Your task to perform on an android device: toggle airplane mode Image 0: 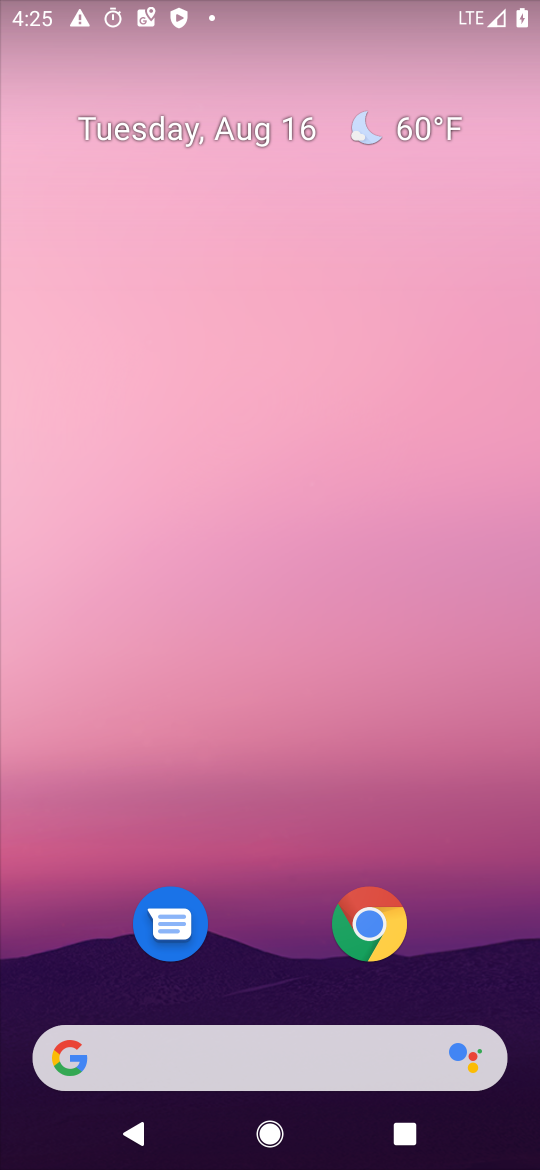
Step 0: drag from (388, 24) to (421, 808)
Your task to perform on an android device: toggle airplane mode Image 1: 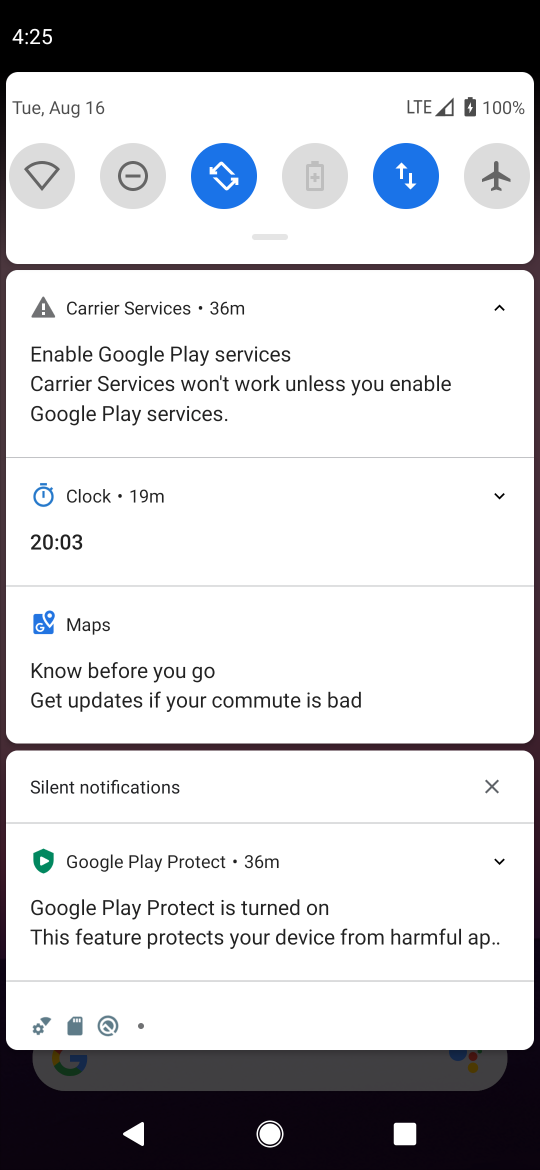
Step 1: click (511, 198)
Your task to perform on an android device: toggle airplane mode Image 2: 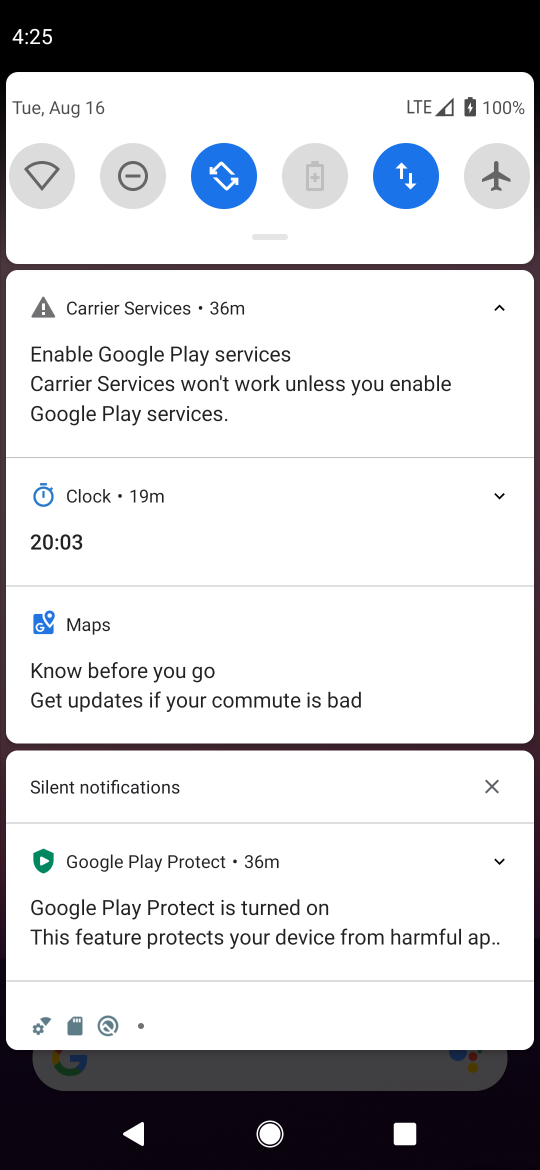
Step 2: click (511, 198)
Your task to perform on an android device: toggle airplane mode Image 3: 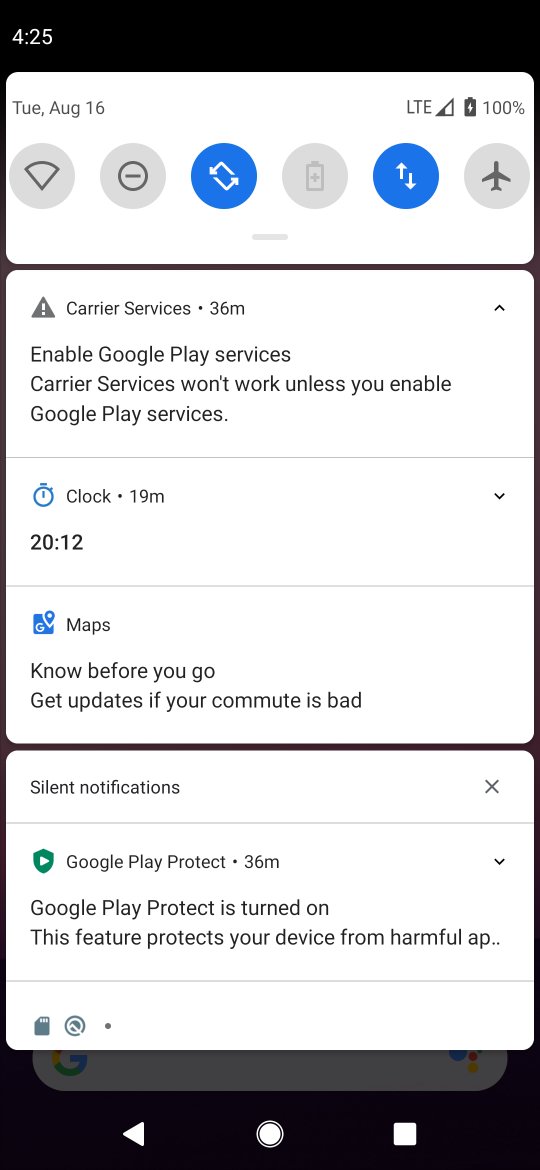
Step 3: click (480, 172)
Your task to perform on an android device: toggle airplane mode Image 4: 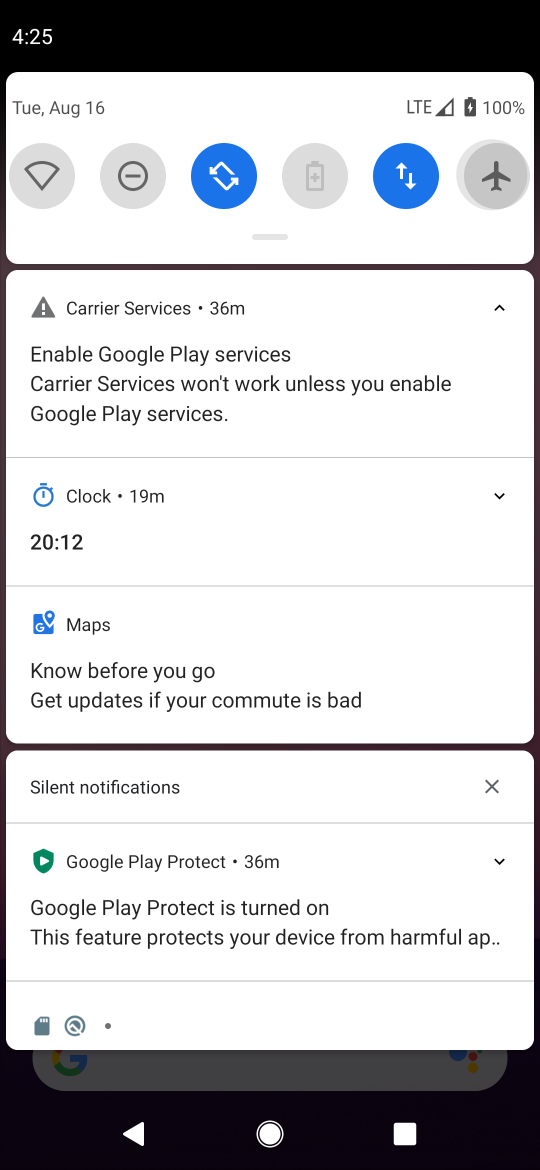
Step 4: click (480, 172)
Your task to perform on an android device: toggle airplane mode Image 5: 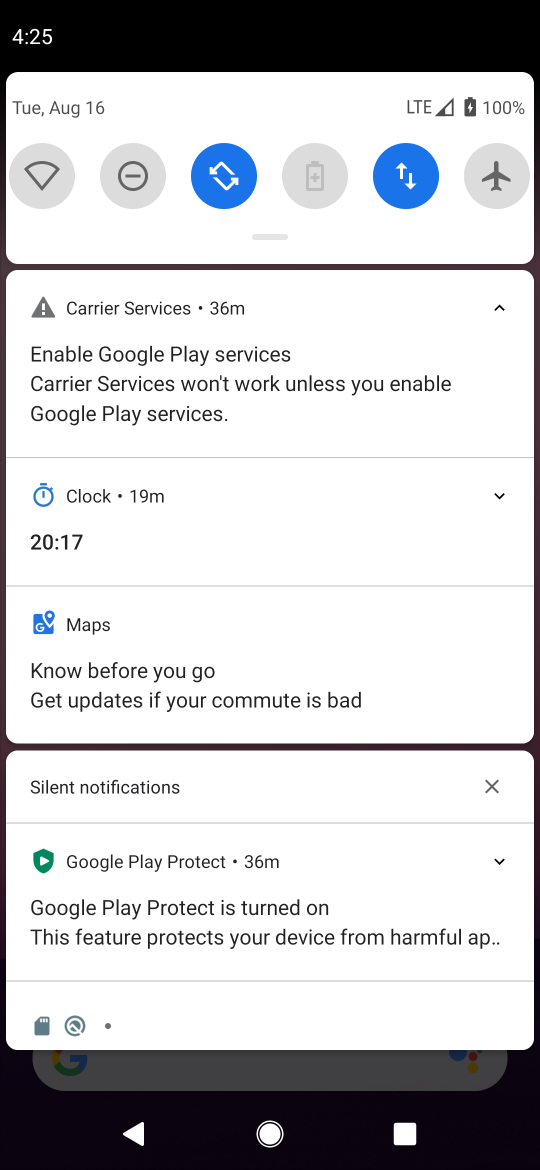
Step 5: task complete